Your task to perform on an android device: Open Amazon Image 0: 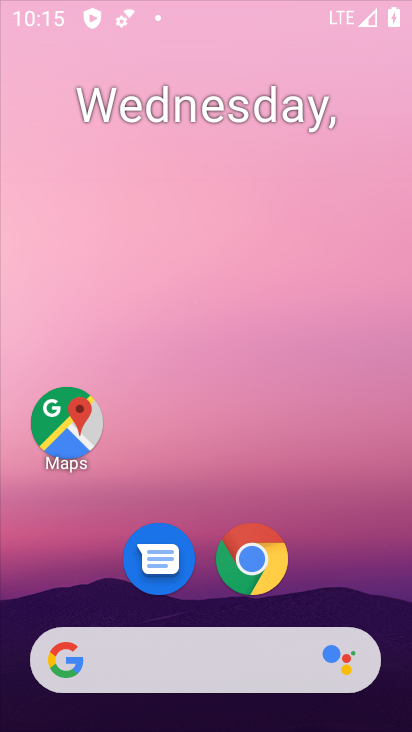
Step 0: drag from (333, 129) to (330, 0)
Your task to perform on an android device: Open Amazon Image 1: 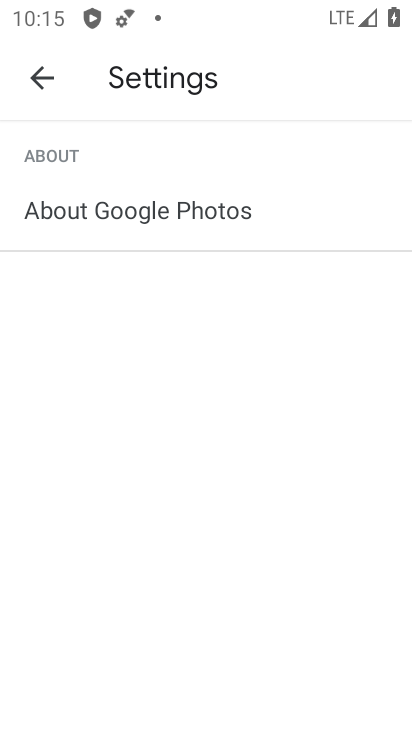
Step 1: press home button
Your task to perform on an android device: Open Amazon Image 2: 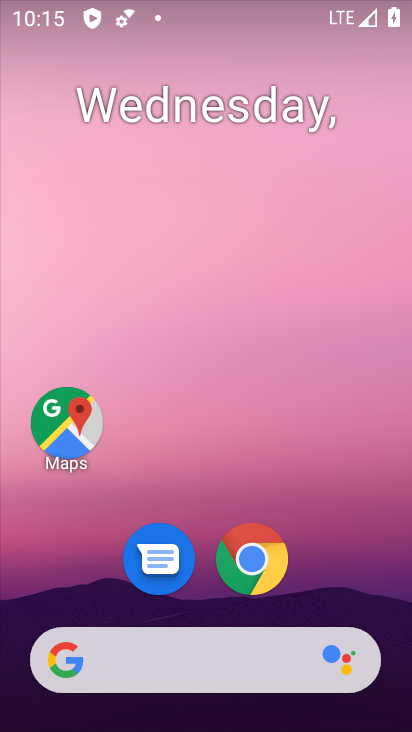
Step 2: click (252, 574)
Your task to perform on an android device: Open Amazon Image 3: 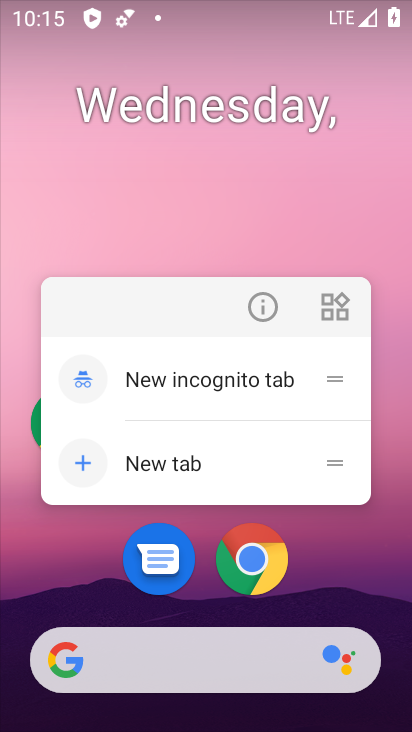
Step 3: click (252, 574)
Your task to perform on an android device: Open Amazon Image 4: 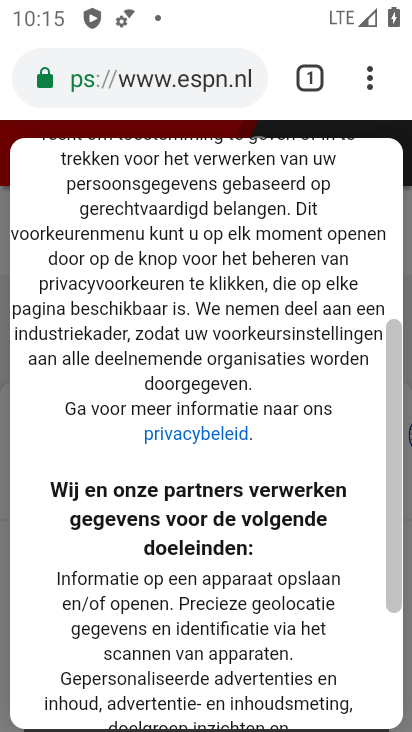
Step 4: click (161, 85)
Your task to perform on an android device: Open Amazon Image 5: 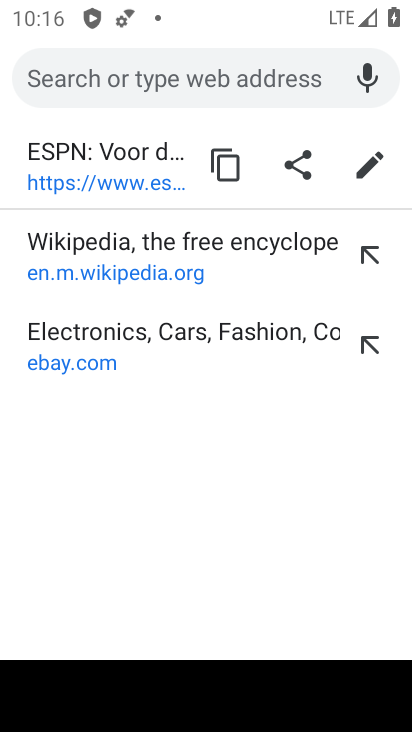
Step 5: type "amazon"
Your task to perform on an android device: Open Amazon Image 6: 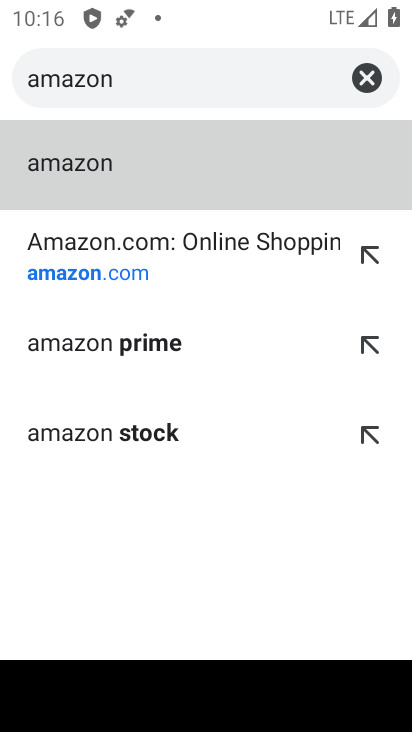
Step 6: click (186, 266)
Your task to perform on an android device: Open Amazon Image 7: 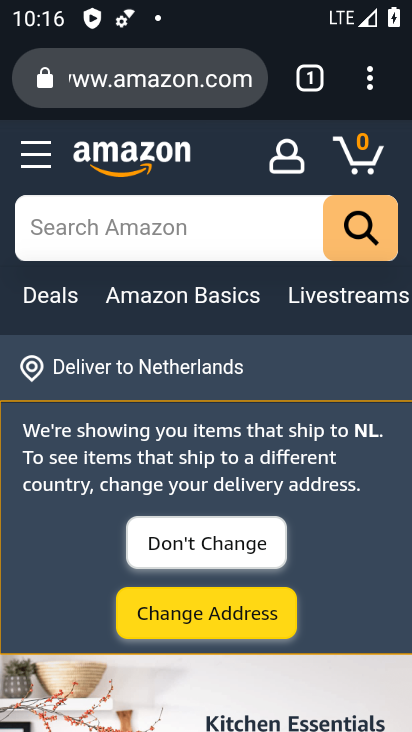
Step 7: task complete